Your task to perform on an android device: stop showing notifications on the lock screen Image 0: 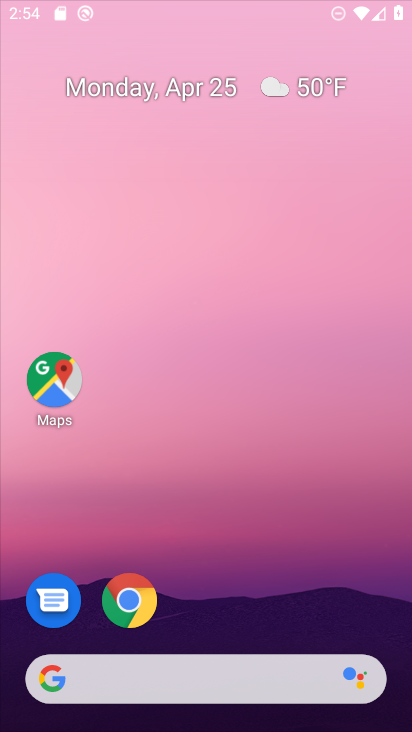
Step 0: drag from (217, 650) to (210, 126)
Your task to perform on an android device: stop showing notifications on the lock screen Image 1: 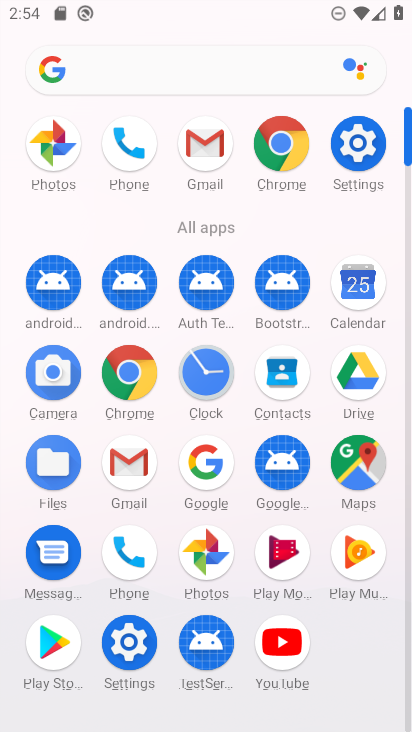
Step 1: click (347, 147)
Your task to perform on an android device: stop showing notifications on the lock screen Image 2: 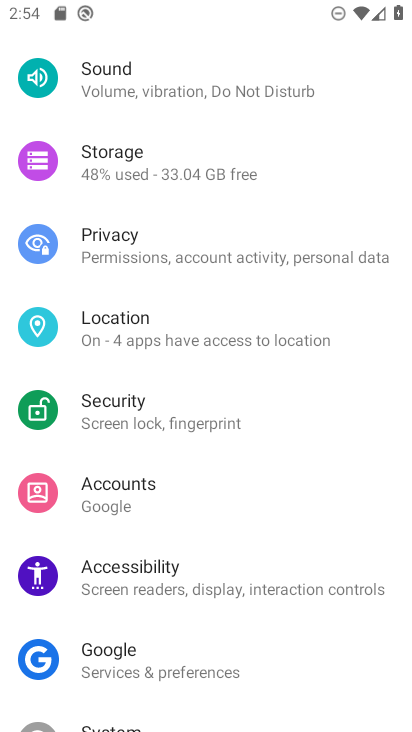
Step 2: drag from (158, 173) to (170, 551)
Your task to perform on an android device: stop showing notifications on the lock screen Image 3: 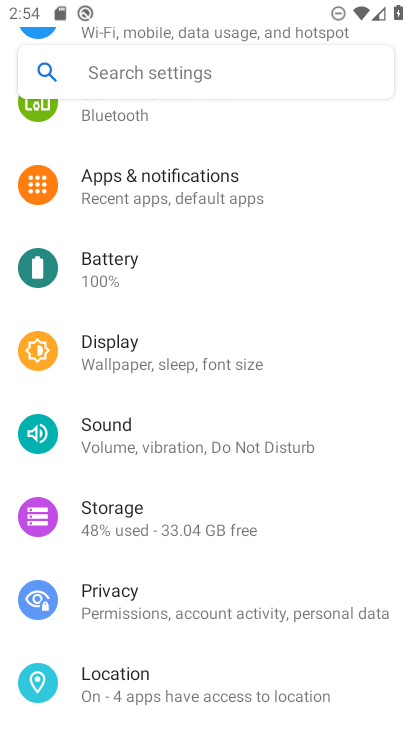
Step 3: click (203, 202)
Your task to perform on an android device: stop showing notifications on the lock screen Image 4: 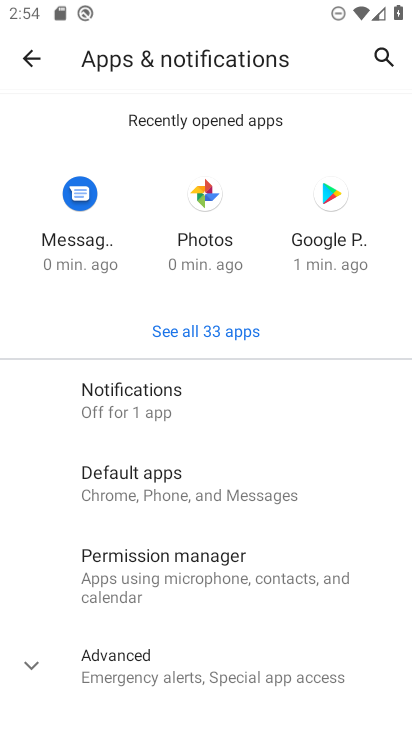
Step 4: click (158, 401)
Your task to perform on an android device: stop showing notifications on the lock screen Image 5: 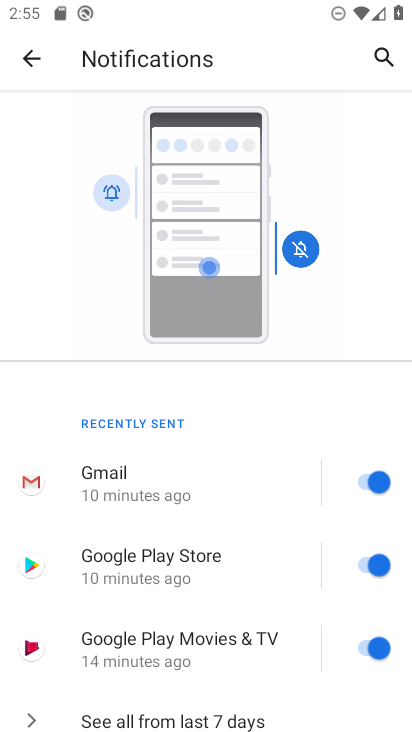
Step 5: drag from (186, 511) to (187, 80)
Your task to perform on an android device: stop showing notifications on the lock screen Image 6: 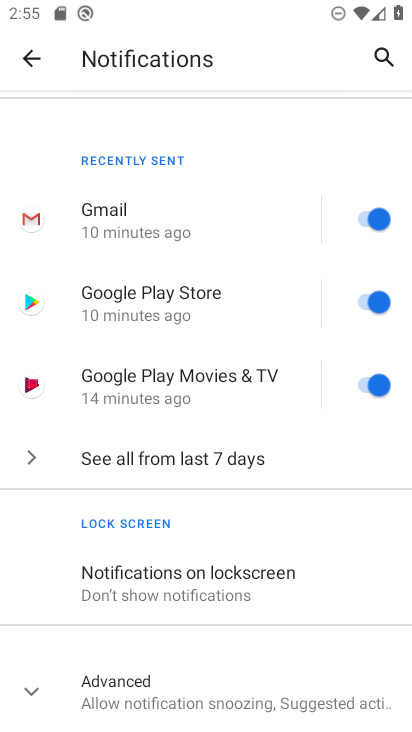
Step 6: click (203, 604)
Your task to perform on an android device: stop showing notifications on the lock screen Image 7: 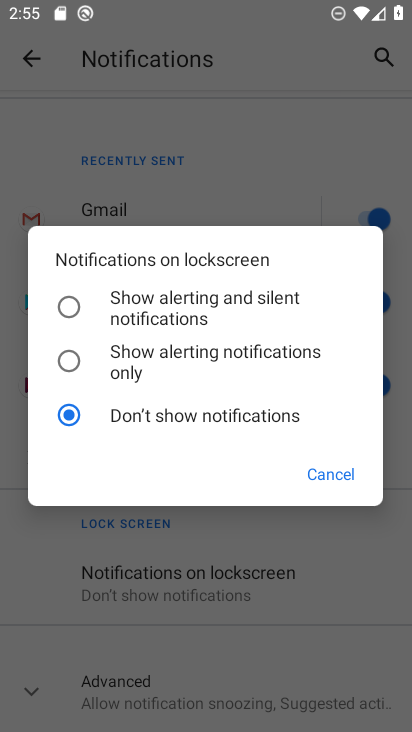
Step 7: click (147, 426)
Your task to perform on an android device: stop showing notifications on the lock screen Image 8: 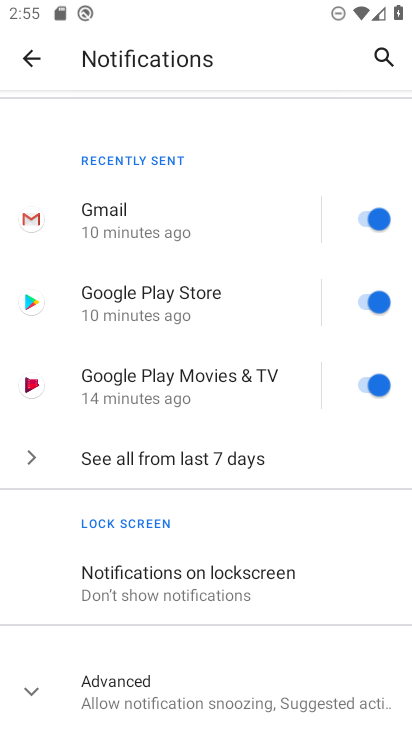
Step 8: task complete